Your task to perform on an android device: turn on the 12-hour format for clock Image 0: 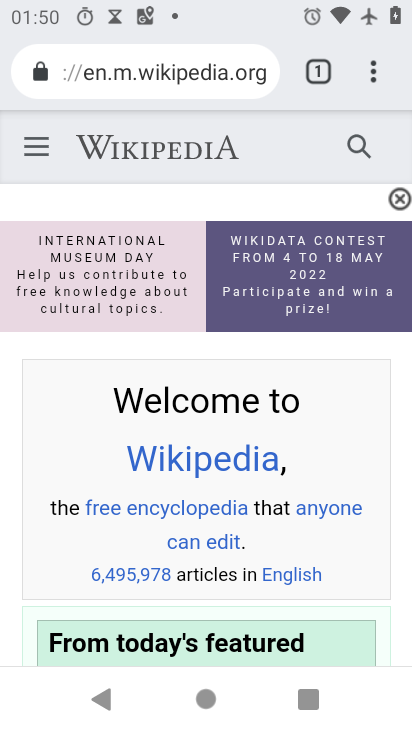
Step 0: press home button
Your task to perform on an android device: turn on the 12-hour format for clock Image 1: 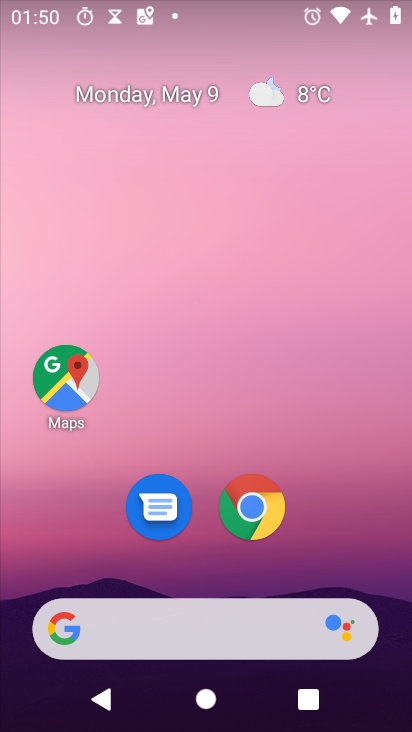
Step 1: drag from (222, 728) to (231, 194)
Your task to perform on an android device: turn on the 12-hour format for clock Image 2: 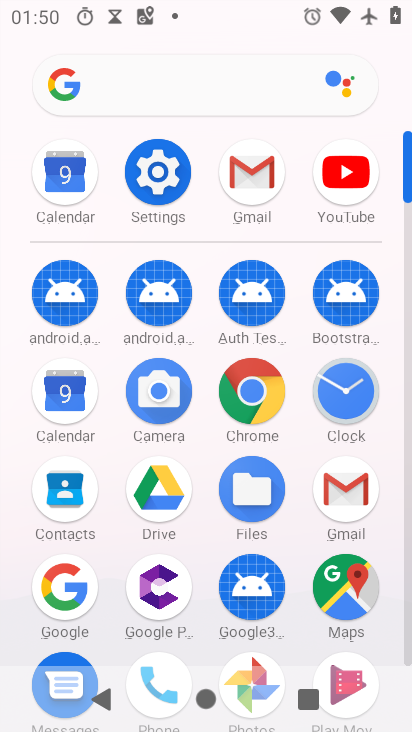
Step 2: click (333, 397)
Your task to perform on an android device: turn on the 12-hour format for clock Image 3: 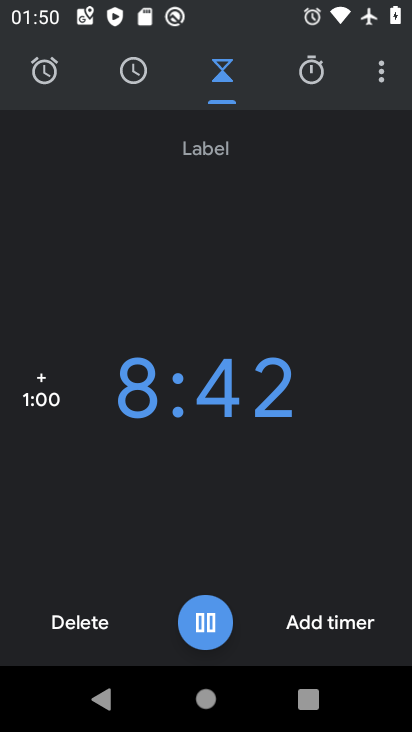
Step 3: click (383, 81)
Your task to perform on an android device: turn on the 12-hour format for clock Image 4: 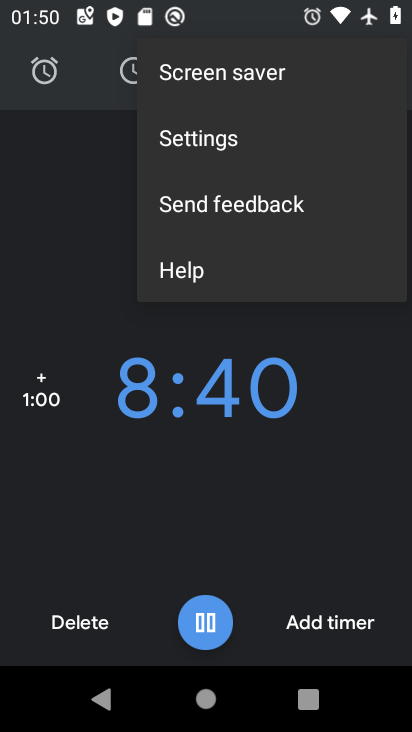
Step 4: click (199, 140)
Your task to perform on an android device: turn on the 12-hour format for clock Image 5: 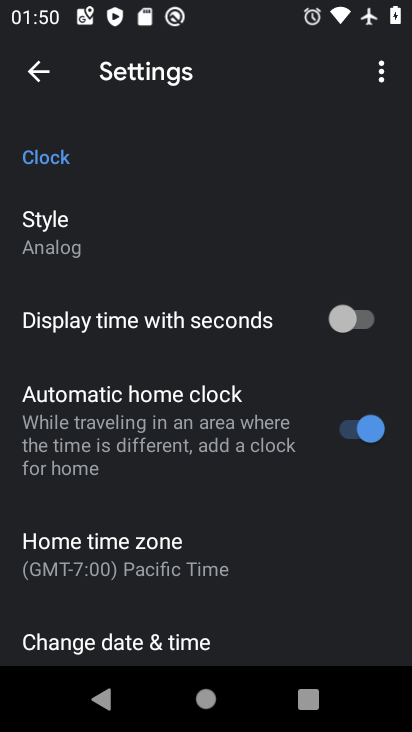
Step 5: drag from (165, 623) to (166, 445)
Your task to perform on an android device: turn on the 12-hour format for clock Image 6: 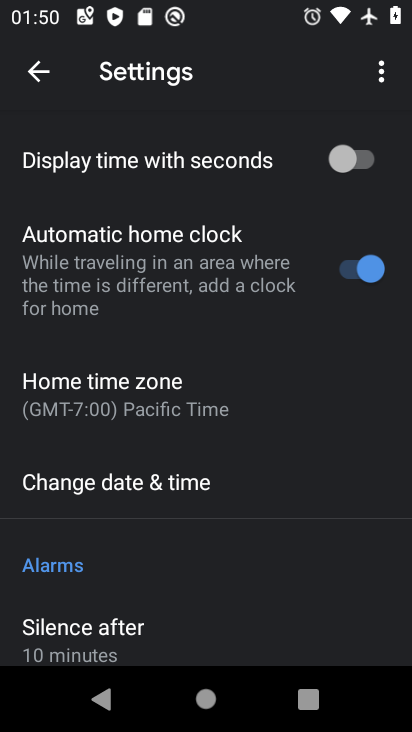
Step 6: click (150, 486)
Your task to perform on an android device: turn on the 12-hour format for clock Image 7: 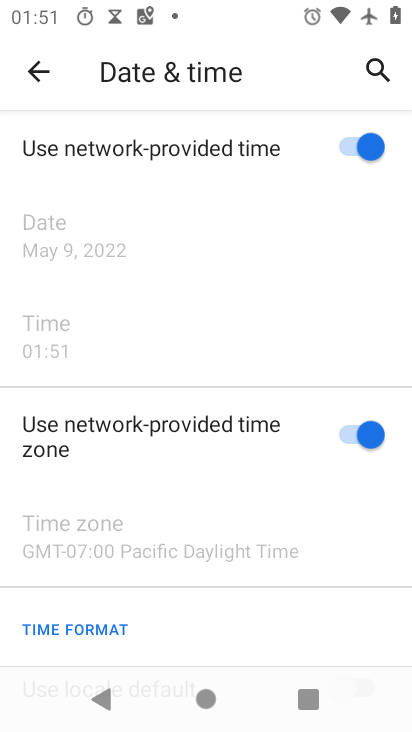
Step 7: task complete